Your task to perform on an android device: toggle improve location accuracy Image 0: 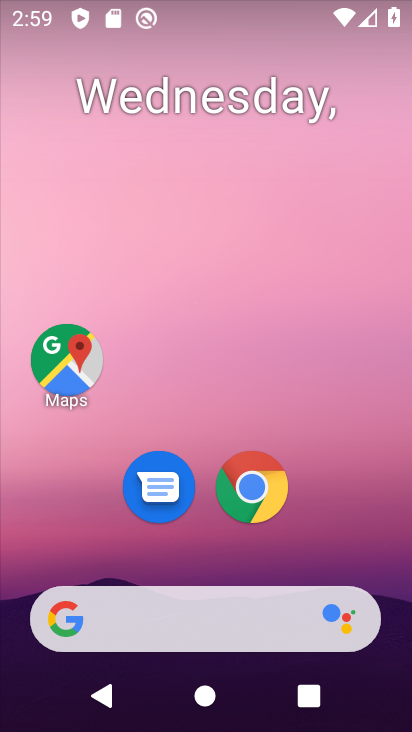
Step 0: drag from (355, 541) to (351, 258)
Your task to perform on an android device: toggle improve location accuracy Image 1: 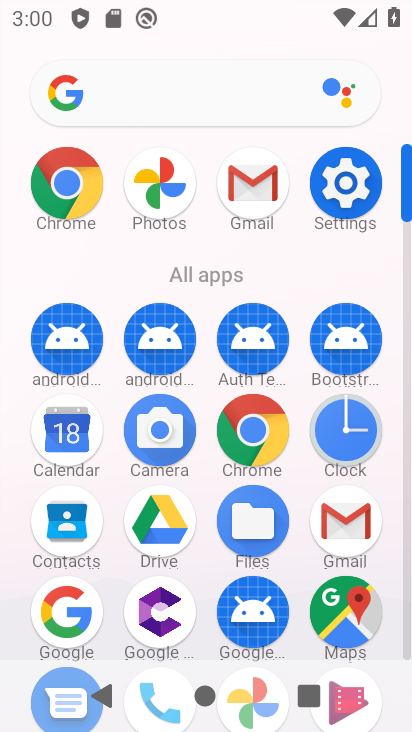
Step 1: click (362, 181)
Your task to perform on an android device: toggle improve location accuracy Image 2: 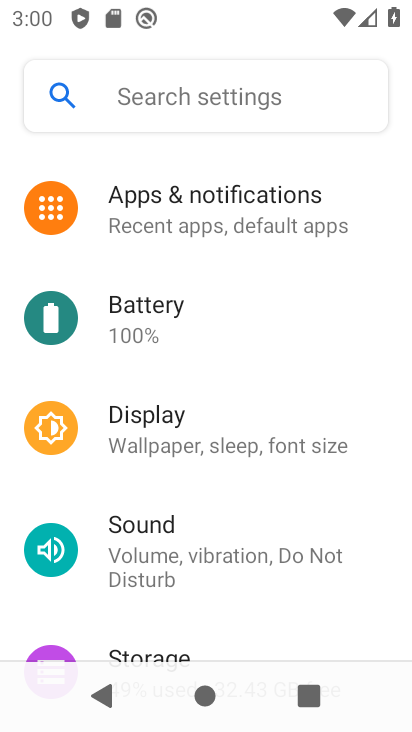
Step 2: drag from (347, 616) to (354, 381)
Your task to perform on an android device: toggle improve location accuracy Image 3: 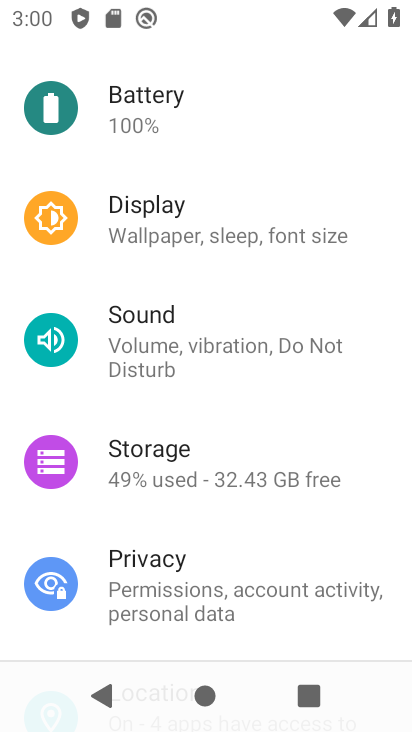
Step 3: drag from (334, 636) to (359, 439)
Your task to perform on an android device: toggle improve location accuracy Image 4: 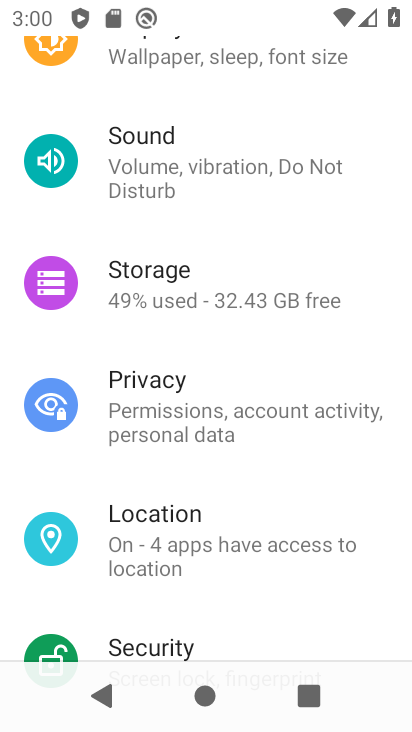
Step 4: drag from (355, 611) to (367, 499)
Your task to perform on an android device: toggle improve location accuracy Image 5: 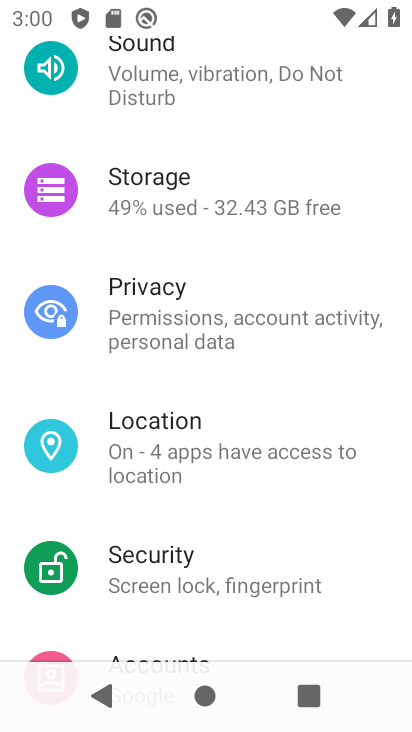
Step 5: drag from (337, 587) to (363, 441)
Your task to perform on an android device: toggle improve location accuracy Image 6: 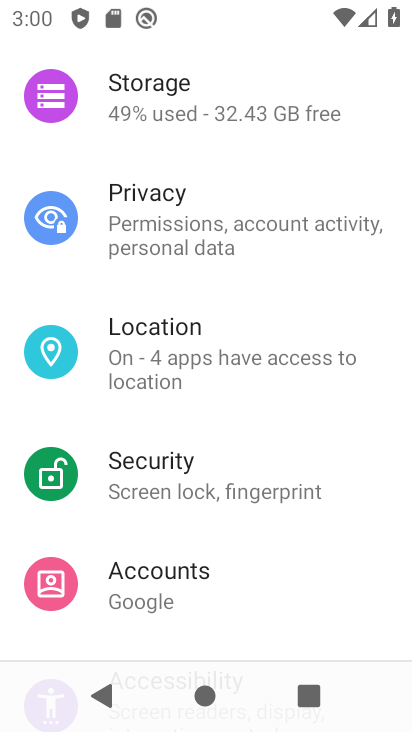
Step 6: drag from (344, 585) to (346, 493)
Your task to perform on an android device: toggle improve location accuracy Image 7: 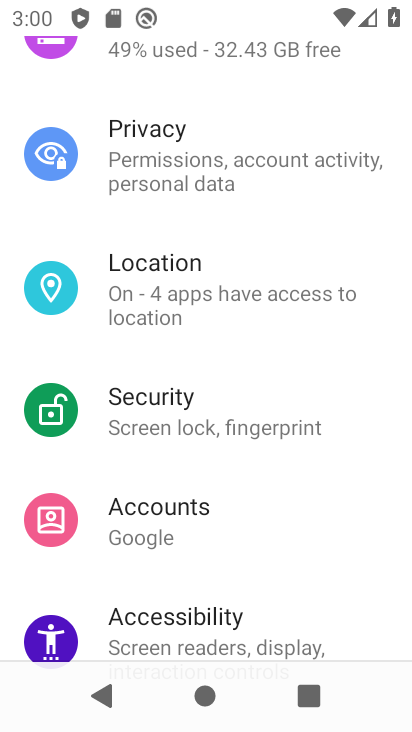
Step 7: drag from (332, 579) to (357, 409)
Your task to perform on an android device: toggle improve location accuracy Image 8: 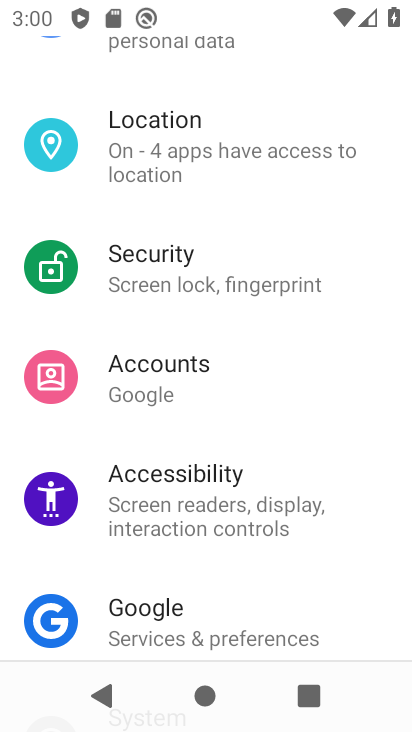
Step 8: drag from (333, 601) to (337, 423)
Your task to perform on an android device: toggle improve location accuracy Image 9: 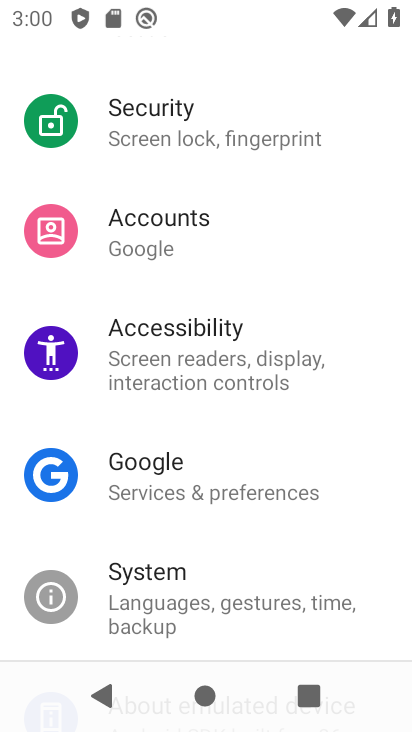
Step 9: drag from (341, 620) to (351, 451)
Your task to perform on an android device: toggle improve location accuracy Image 10: 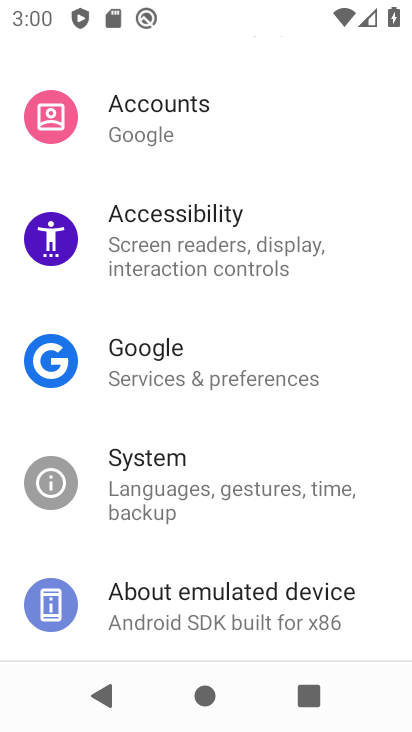
Step 10: drag from (331, 629) to (341, 460)
Your task to perform on an android device: toggle improve location accuracy Image 11: 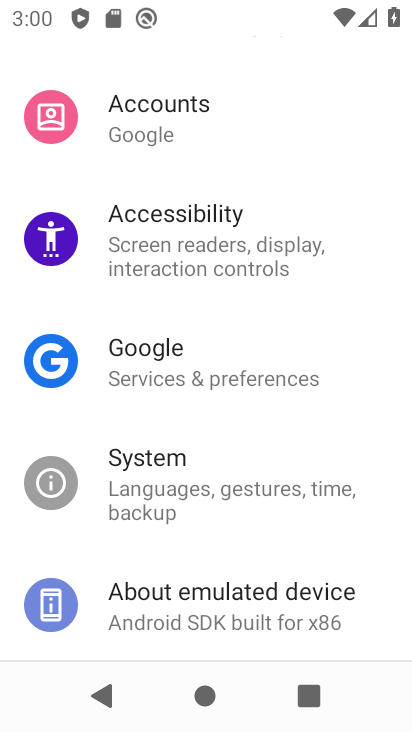
Step 11: drag from (359, 325) to (358, 536)
Your task to perform on an android device: toggle improve location accuracy Image 12: 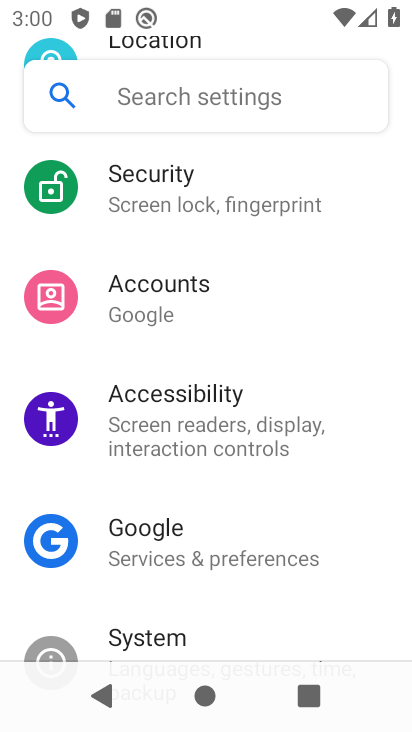
Step 12: drag from (353, 327) to (352, 521)
Your task to perform on an android device: toggle improve location accuracy Image 13: 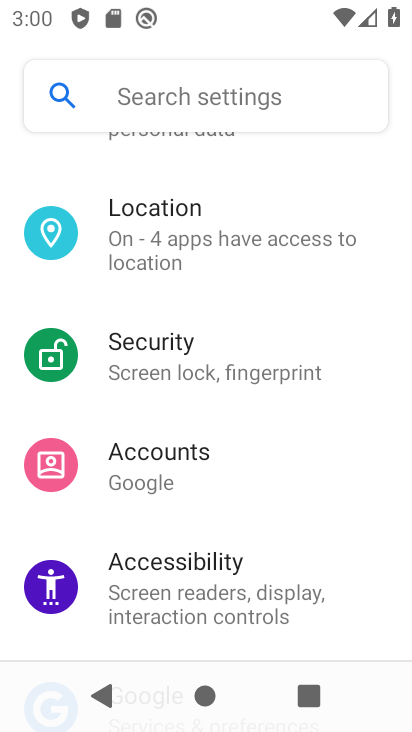
Step 13: click (284, 247)
Your task to perform on an android device: toggle improve location accuracy Image 14: 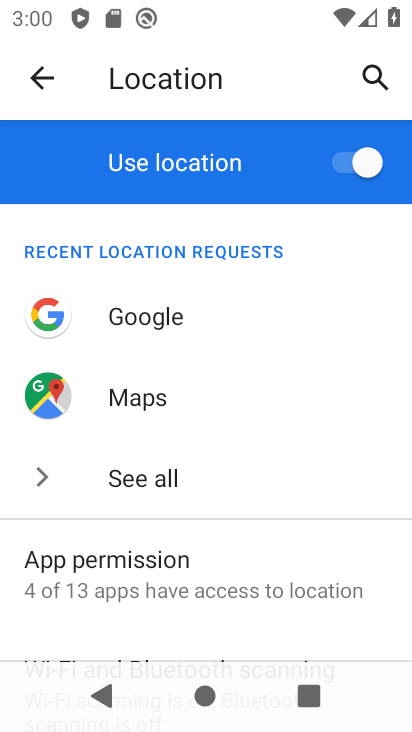
Step 14: drag from (314, 593) to (313, 437)
Your task to perform on an android device: toggle improve location accuracy Image 15: 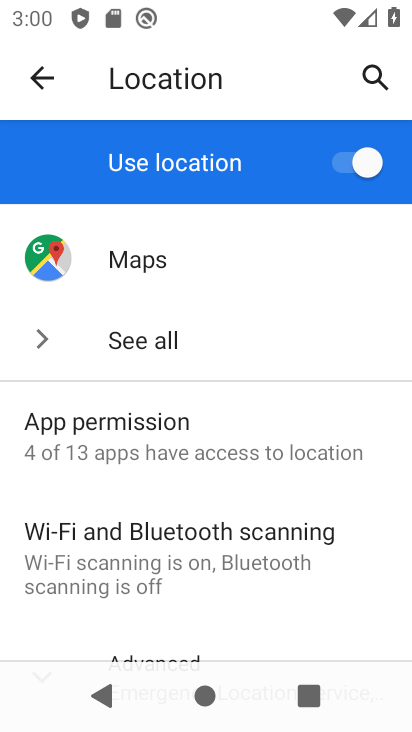
Step 15: drag from (292, 617) to (300, 474)
Your task to perform on an android device: toggle improve location accuracy Image 16: 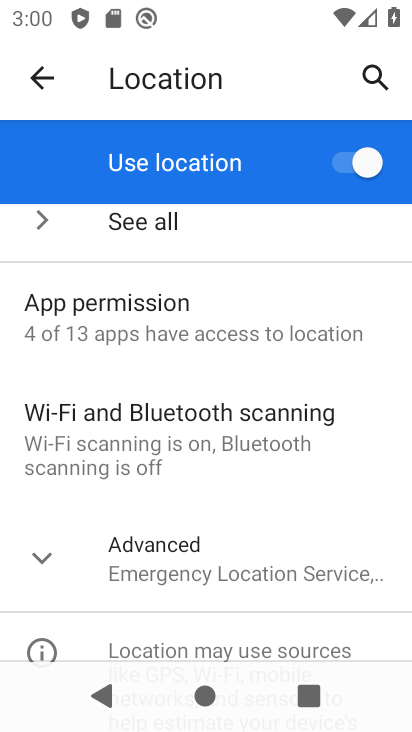
Step 16: drag from (286, 594) to (295, 501)
Your task to perform on an android device: toggle improve location accuracy Image 17: 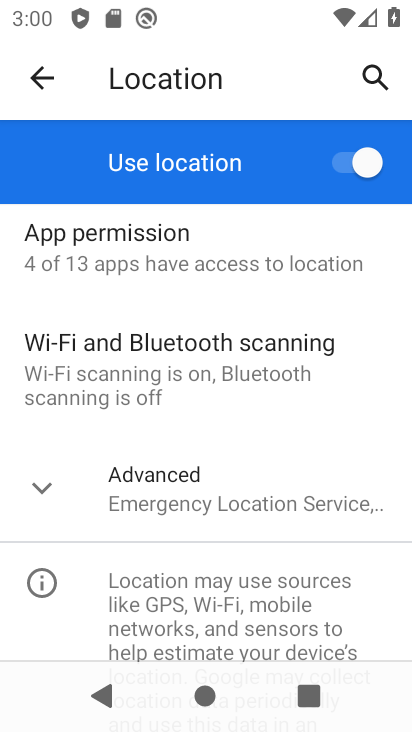
Step 17: drag from (287, 584) to (287, 469)
Your task to perform on an android device: toggle improve location accuracy Image 18: 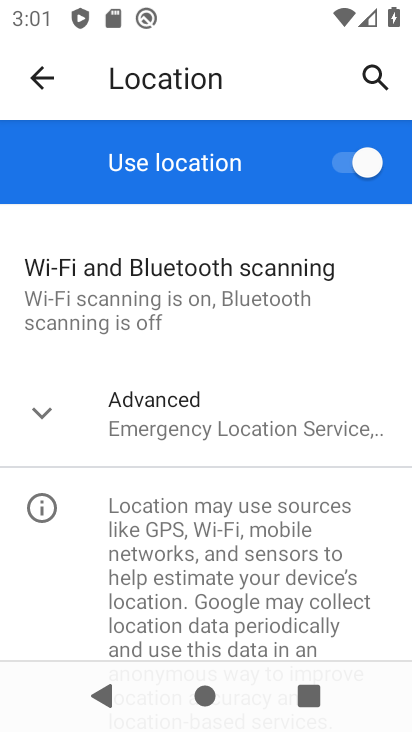
Step 18: click (221, 422)
Your task to perform on an android device: toggle improve location accuracy Image 19: 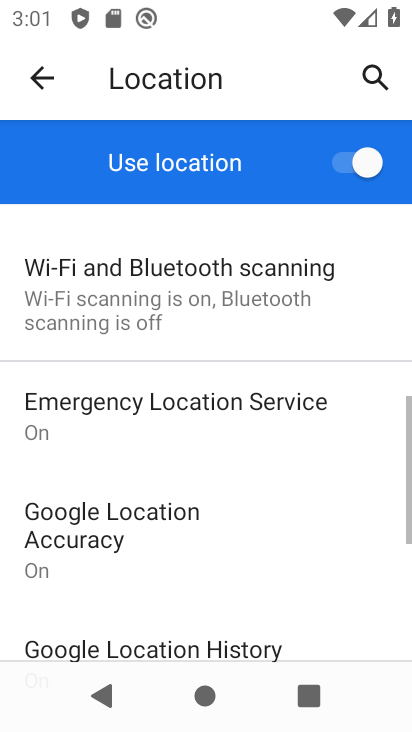
Step 19: drag from (258, 619) to (259, 444)
Your task to perform on an android device: toggle improve location accuracy Image 20: 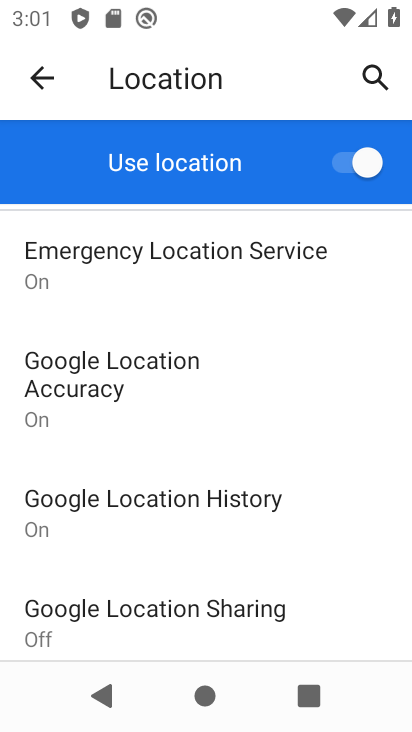
Step 20: drag from (270, 625) to (286, 464)
Your task to perform on an android device: toggle improve location accuracy Image 21: 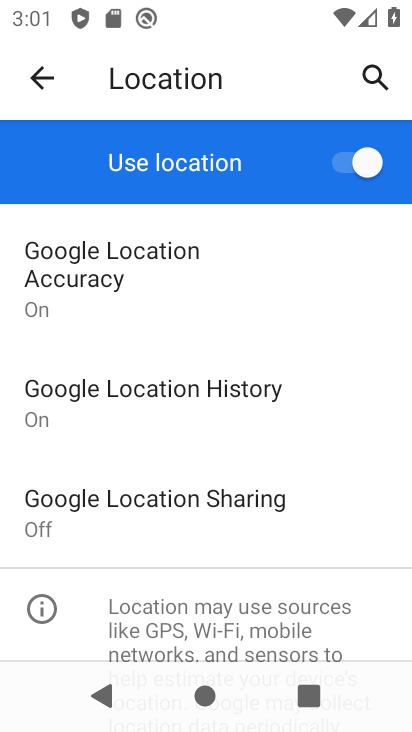
Step 21: drag from (282, 558) to (284, 440)
Your task to perform on an android device: toggle improve location accuracy Image 22: 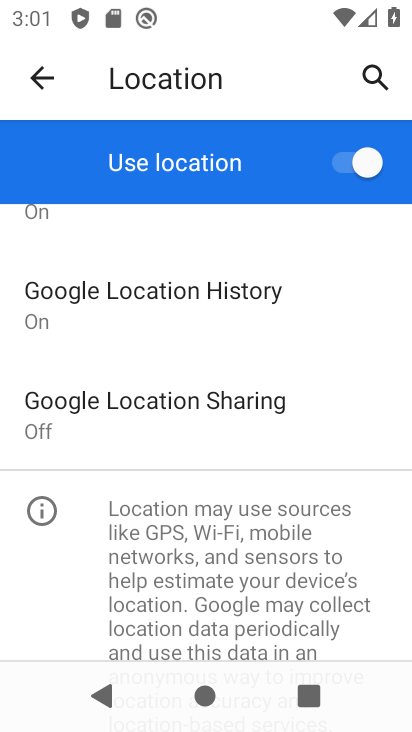
Step 22: drag from (275, 585) to (275, 502)
Your task to perform on an android device: toggle improve location accuracy Image 23: 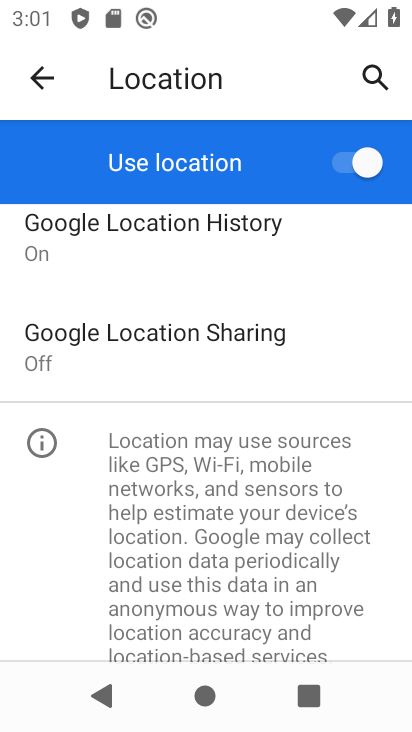
Step 23: drag from (325, 320) to (317, 522)
Your task to perform on an android device: toggle improve location accuracy Image 24: 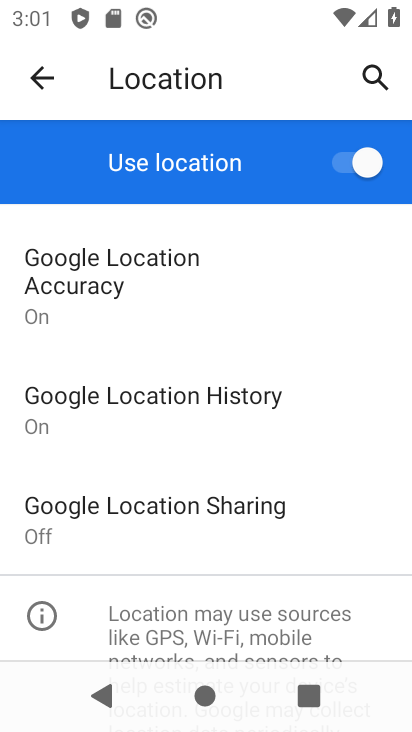
Step 24: click (87, 290)
Your task to perform on an android device: toggle improve location accuracy Image 25: 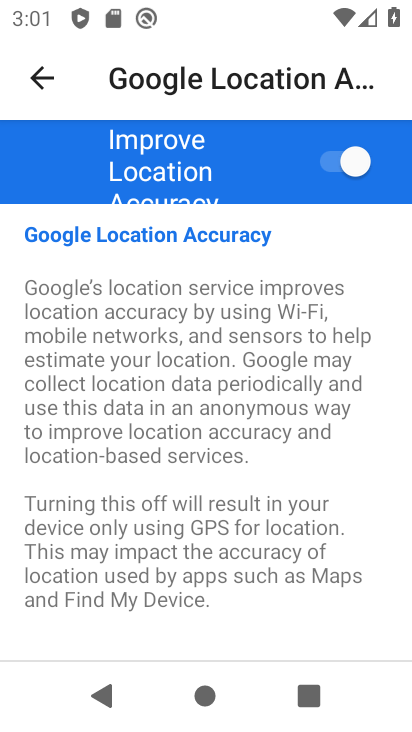
Step 25: task complete